Your task to perform on an android device: Open Android settings Image 0: 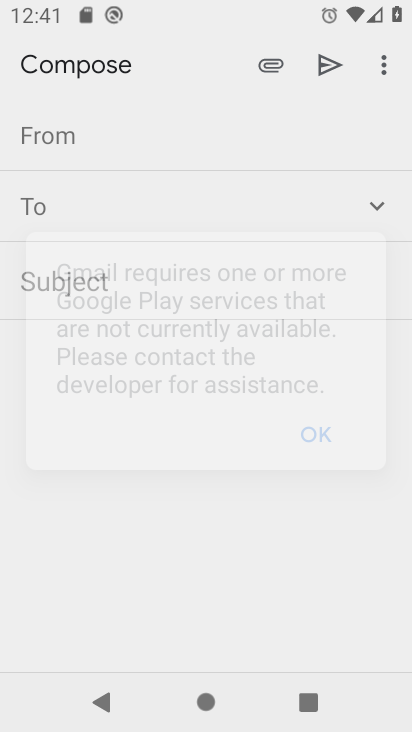
Step 0: click (210, 466)
Your task to perform on an android device: Open Android settings Image 1: 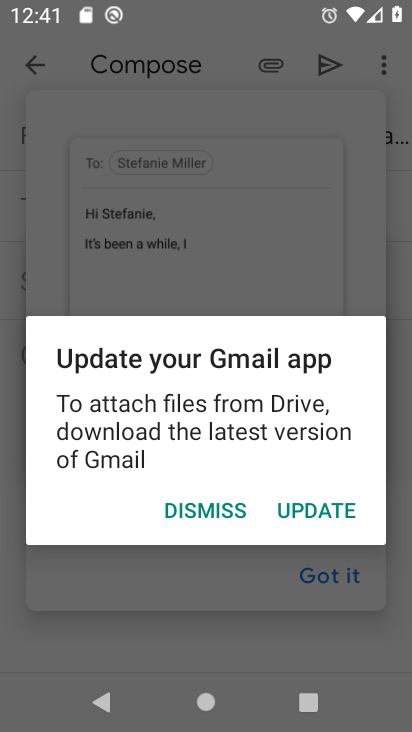
Step 1: press home button
Your task to perform on an android device: Open Android settings Image 2: 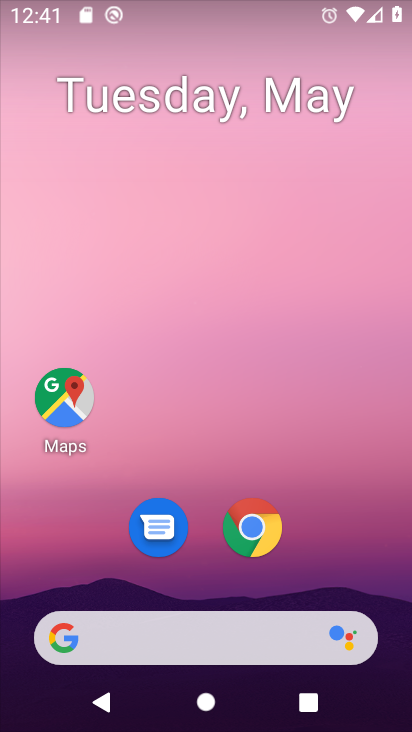
Step 2: drag from (258, 703) to (209, 76)
Your task to perform on an android device: Open Android settings Image 3: 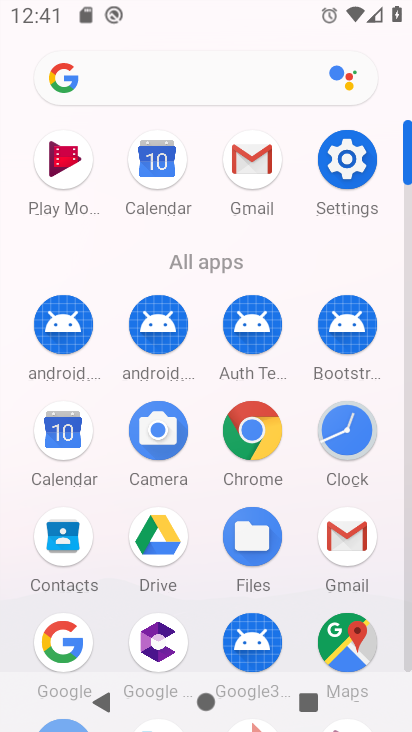
Step 3: click (340, 178)
Your task to perform on an android device: Open Android settings Image 4: 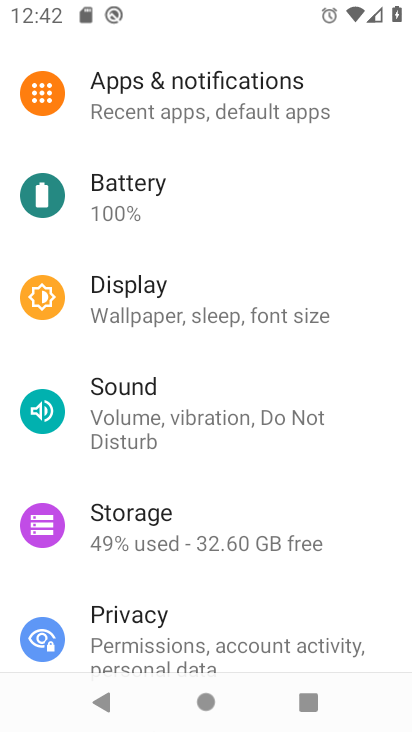
Step 4: task complete